Your task to perform on an android device: Search for "logitech g pro" on costco.com, select the first entry, and add it to the cart. Image 0: 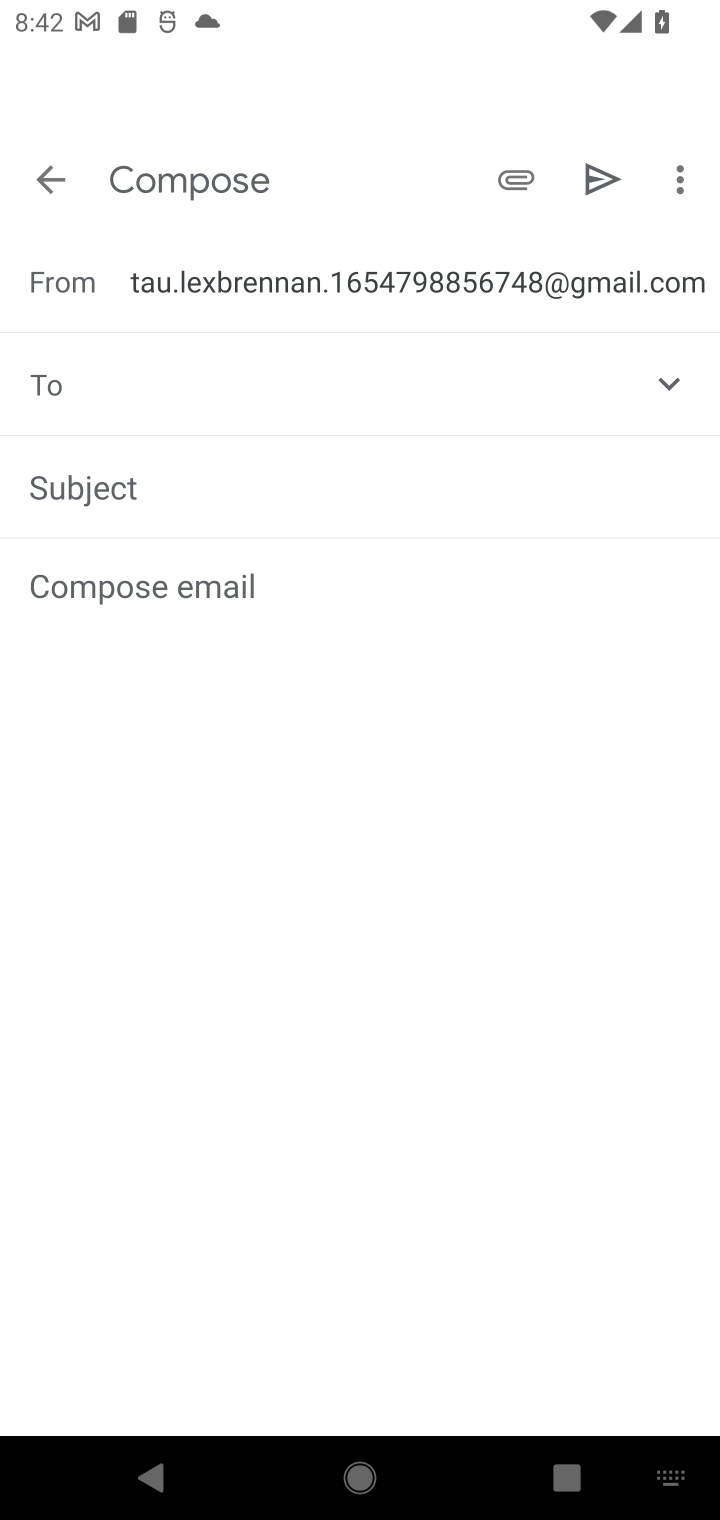
Step 0: press home button
Your task to perform on an android device: Search for "logitech g pro" on costco.com, select the first entry, and add it to the cart. Image 1: 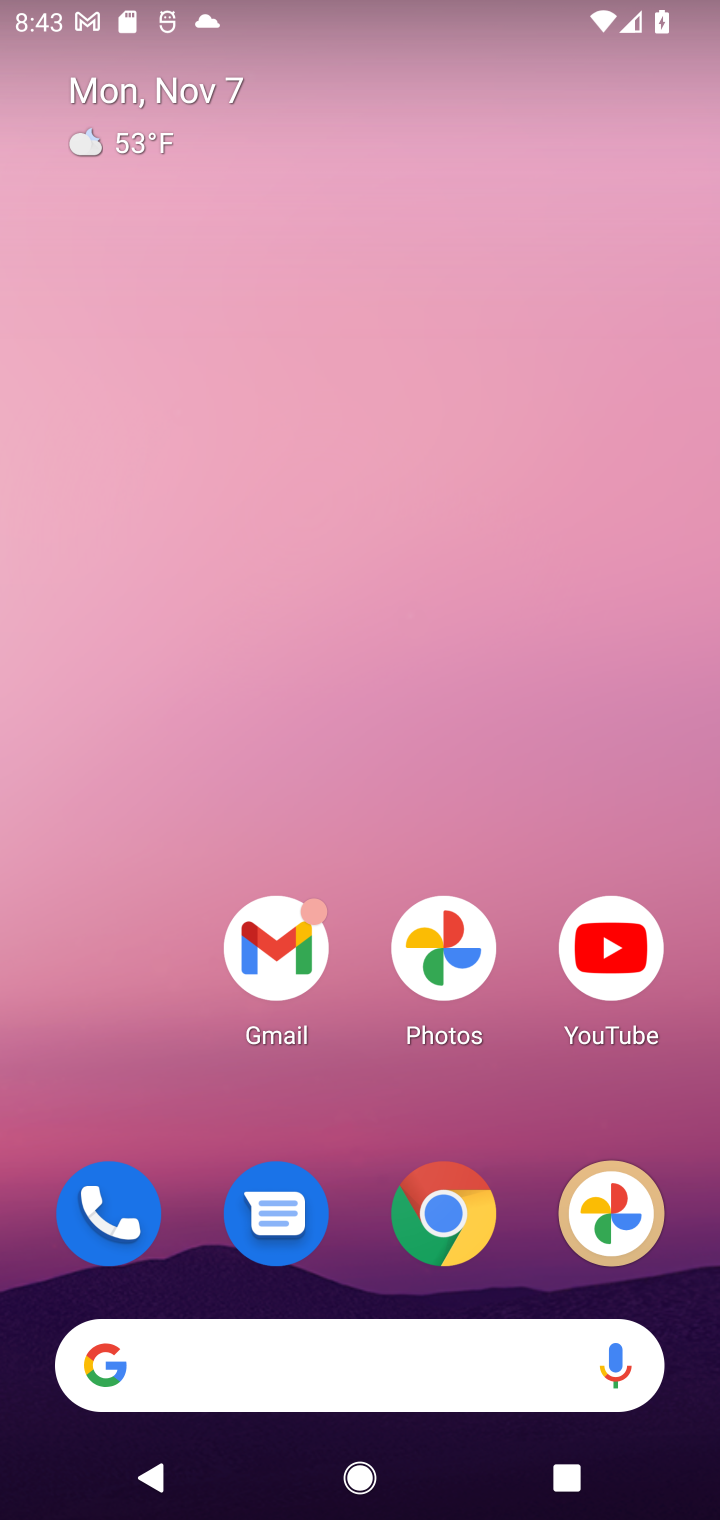
Step 1: click (446, 1228)
Your task to perform on an android device: Search for "logitech g pro" on costco.com, select the first entry, and add it to the cart. Image 2: 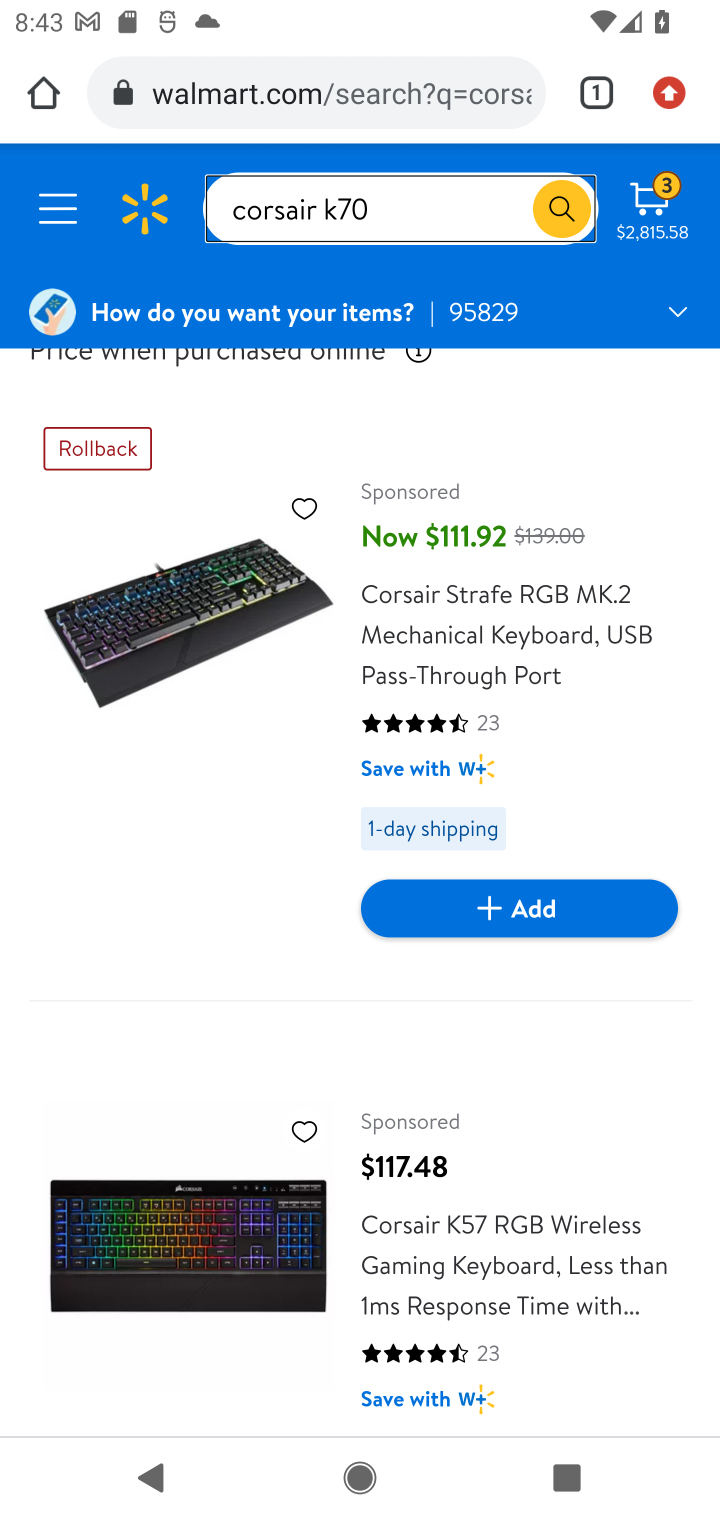
Step 2: click (293, 94)
Your task to perform on an android device: Search for "logitech g pro" on costco.com, select the first entry, and add it to the cart. Image 3: 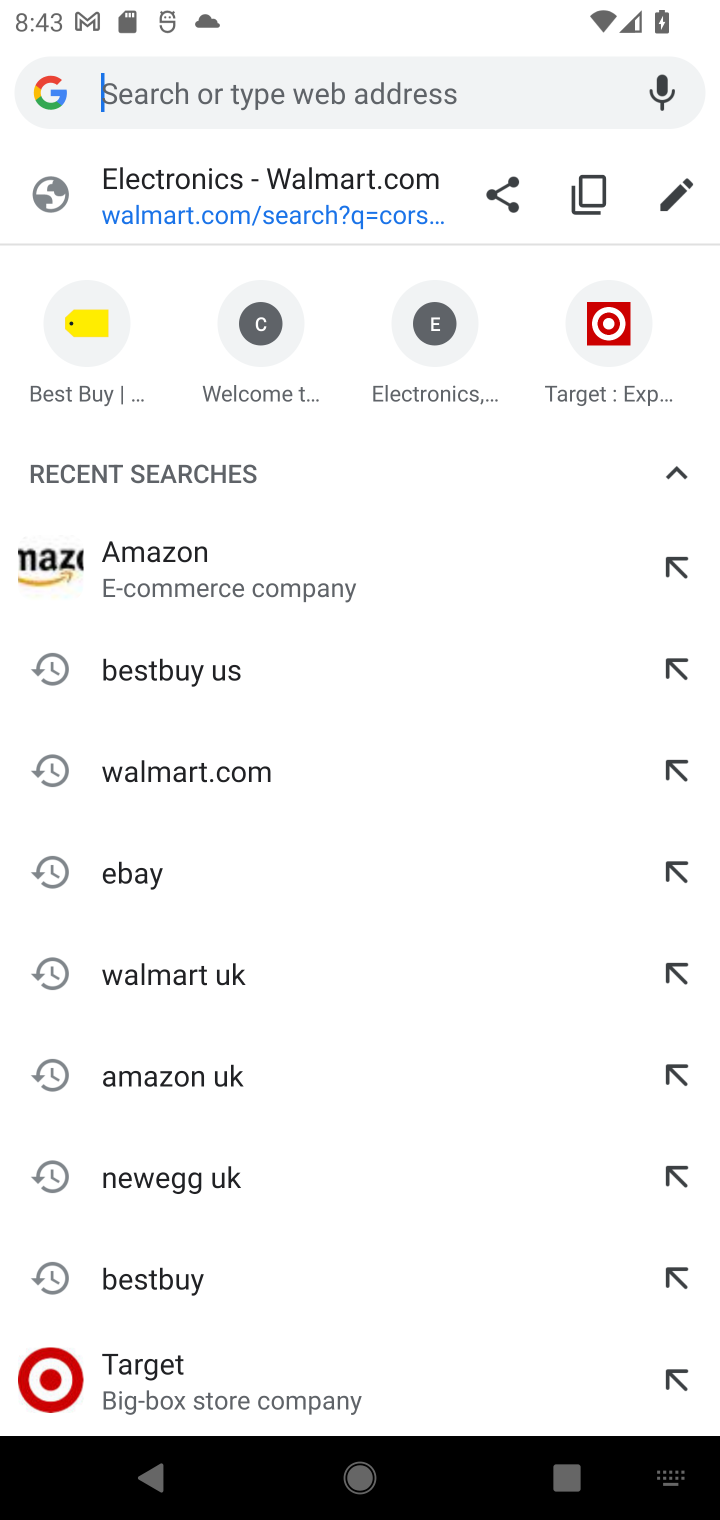
Step 3: type "costco.com"
Your task to perform on an android device: Search for "logitech g pro" on costco.com, select the first entry, and add it to the cart. Image 4: 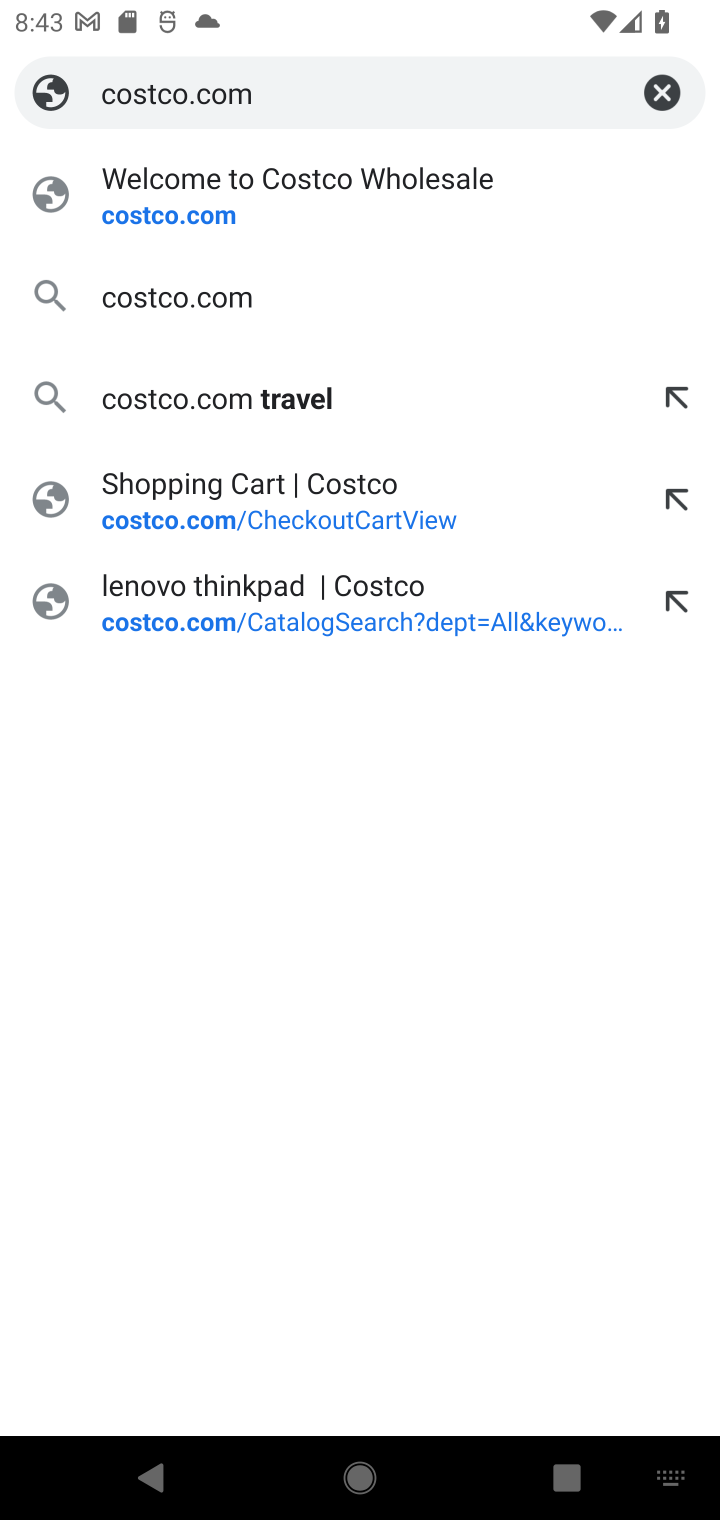
Step 4: click (179, 228)
Your task to perform on an android device: Search for "logitech g pro" on costco.com, select the first entry, and add it to the cart. Image 5: 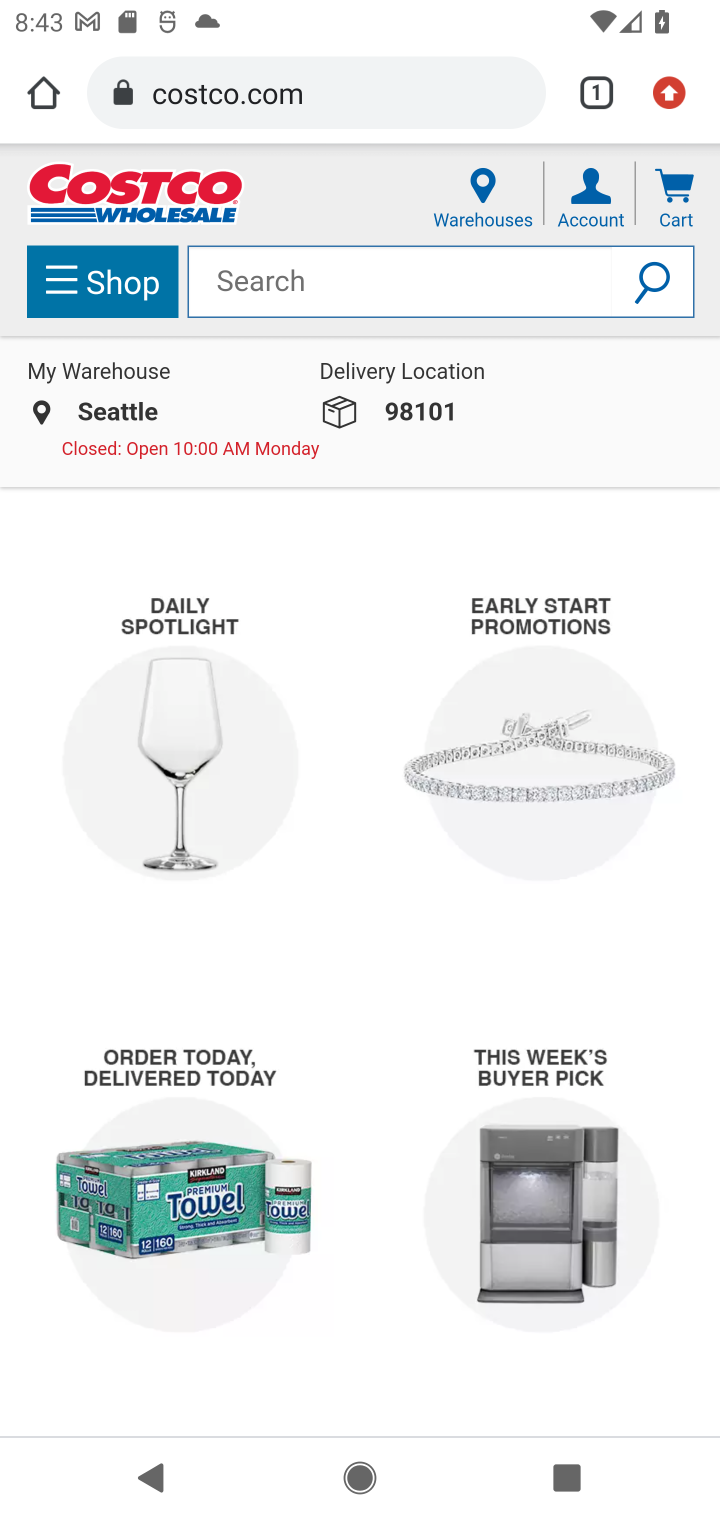
Step 5: click (299, 278)
Your task to perform on an android device: Search for "logitech g pro" on costco.com, select the first entry, and add it to the cart. Image 6: 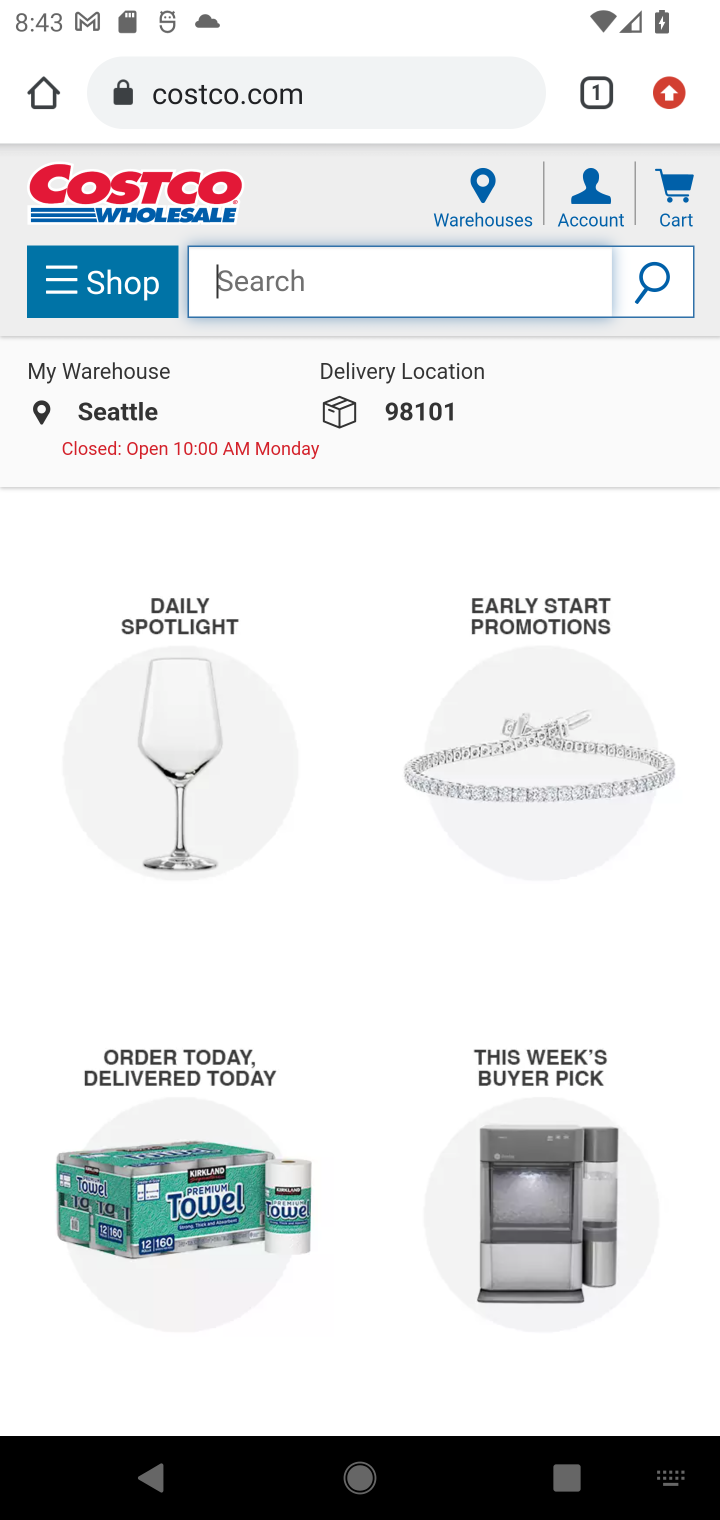
Step 6: type "logitech g pro"
Your task to perform on an android device: Search for "logitech g pro" on costco.com, select the first entry, and add it to the cart. Image 7: 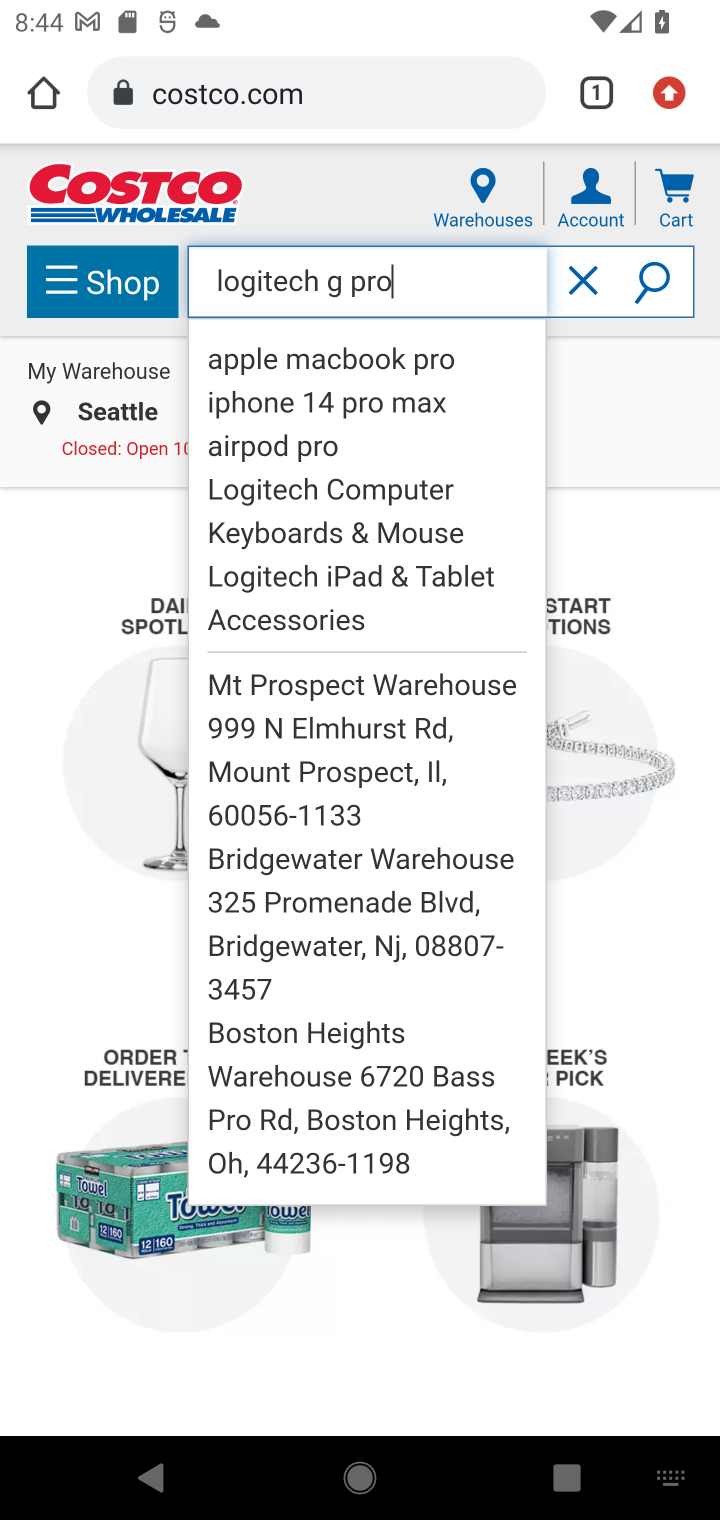
Step 7: click (646, 280)
Your task to perform on an android device: Search for "logitech g pro" on costco.com, select the first entry, and add it to the cart. Image 8: 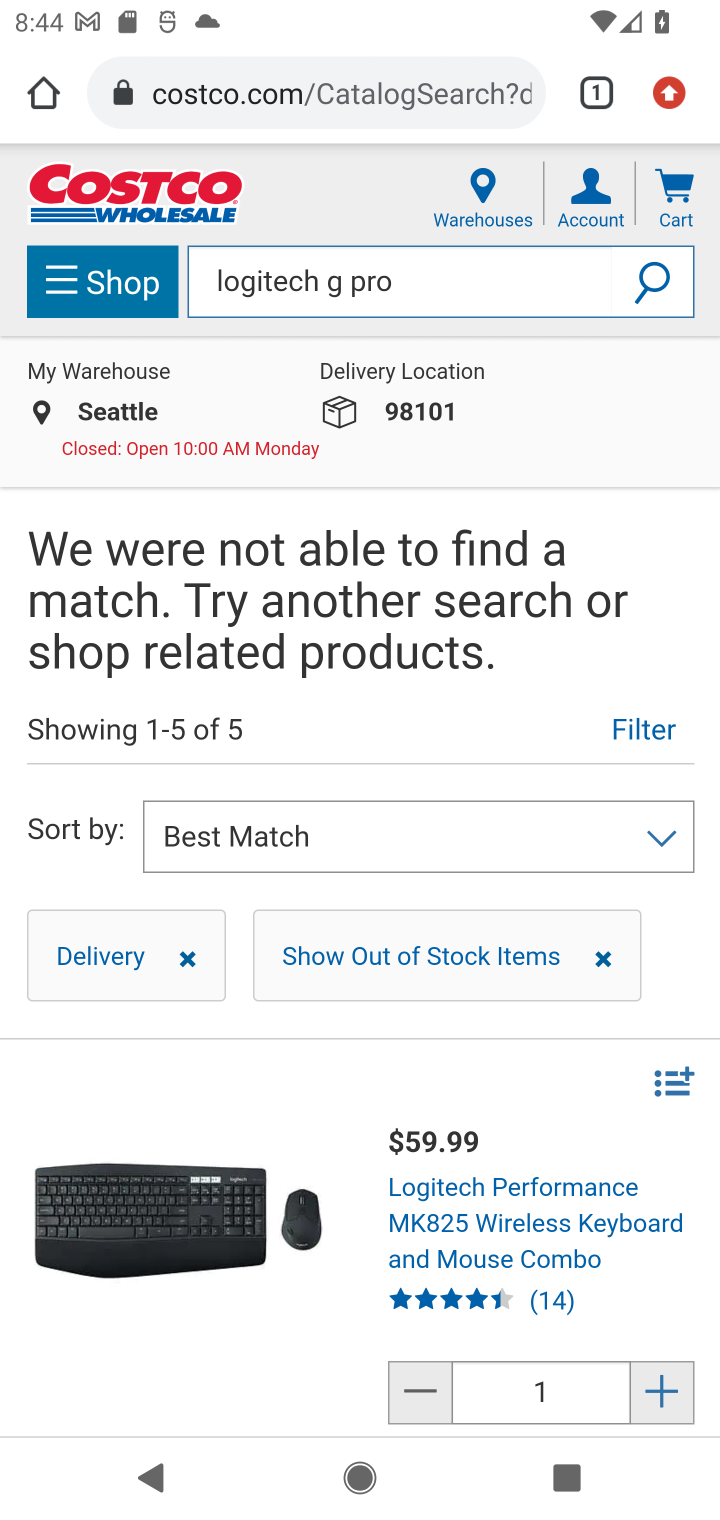
Step 8: task complete